Your task to perform on an android device: What's on my calendar for the rest of the week? Image 0: 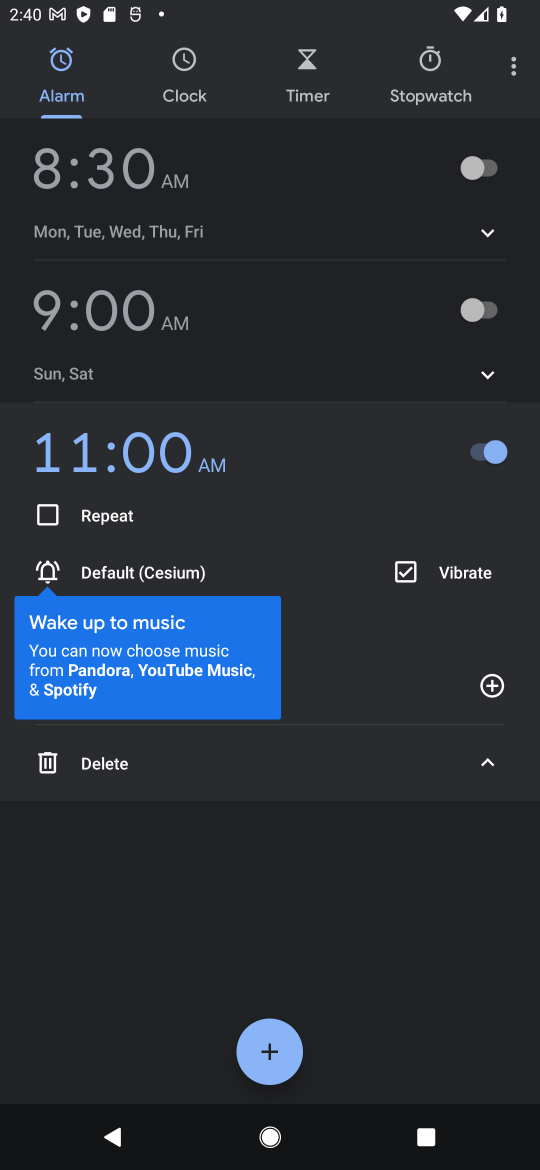
Step 0: press home button
Your task to perform on an android device: What's on my calendar for the rest of the week? Image 1: 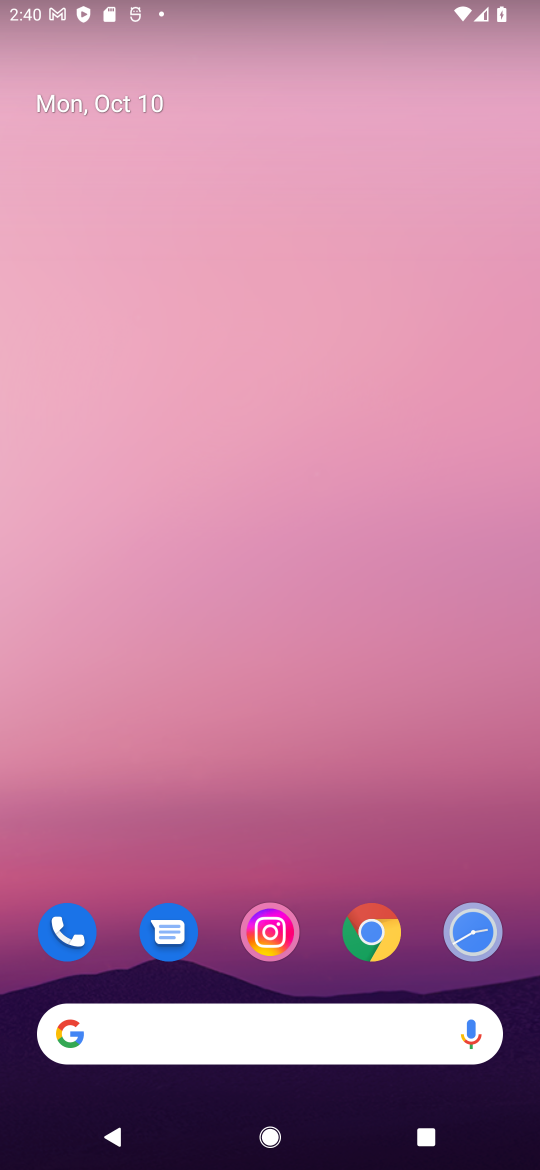
Step 1: drag from (469, 818) to (475, 241)
Your task to perform on an android device: What's on my calendar for the rest of the week? Image 2: 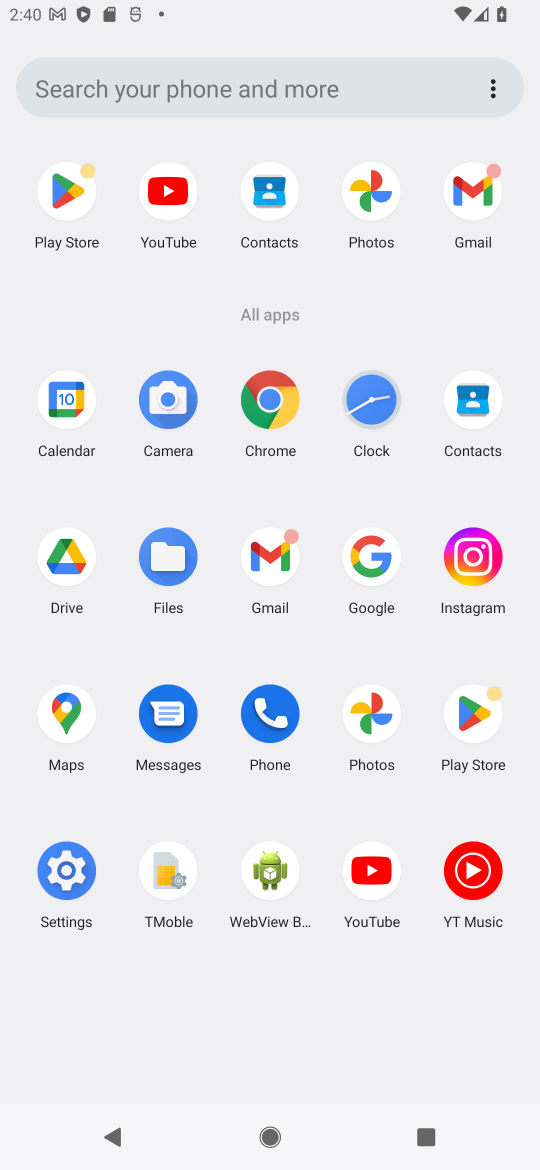
Step 2: click (71, 418)
Your task to perform on an android device: What's on my calendar for the rest of the week? Image 3: 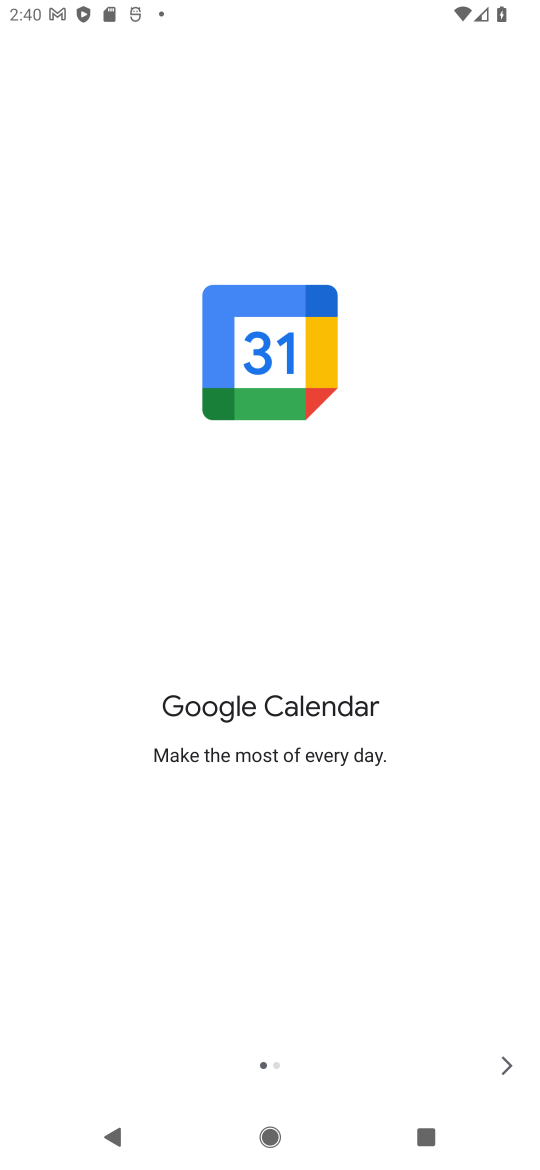
Step 3: click (499, 1067)
Your task to perform on an android device: What's on my calendar for the rest of the week? Image 4: 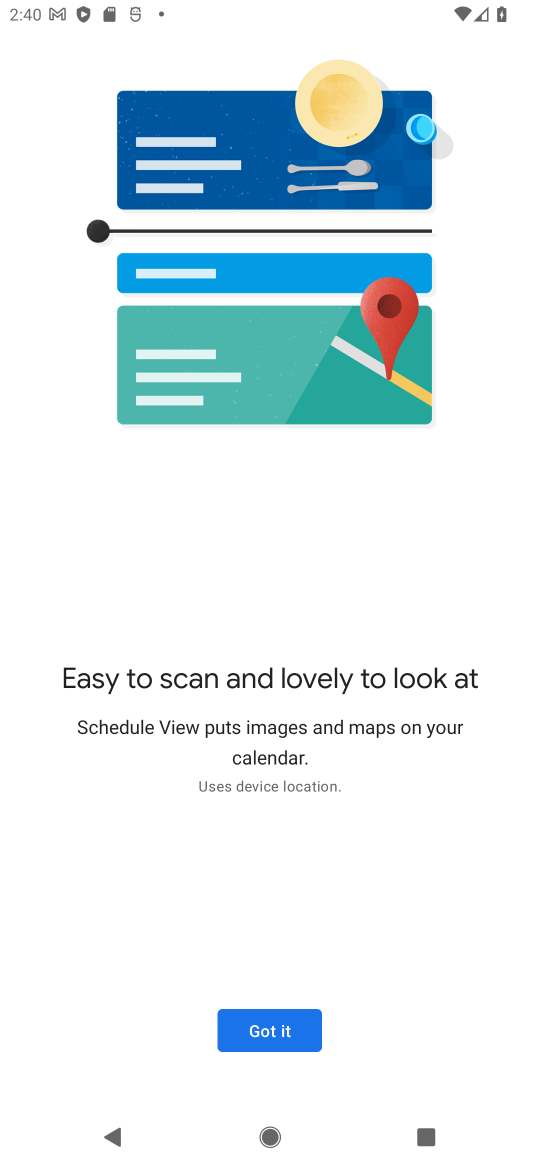
Step 4: click (282, 1026)
Your task to perform on an android device: What's on my calendar for the rest of the week? Image 5: 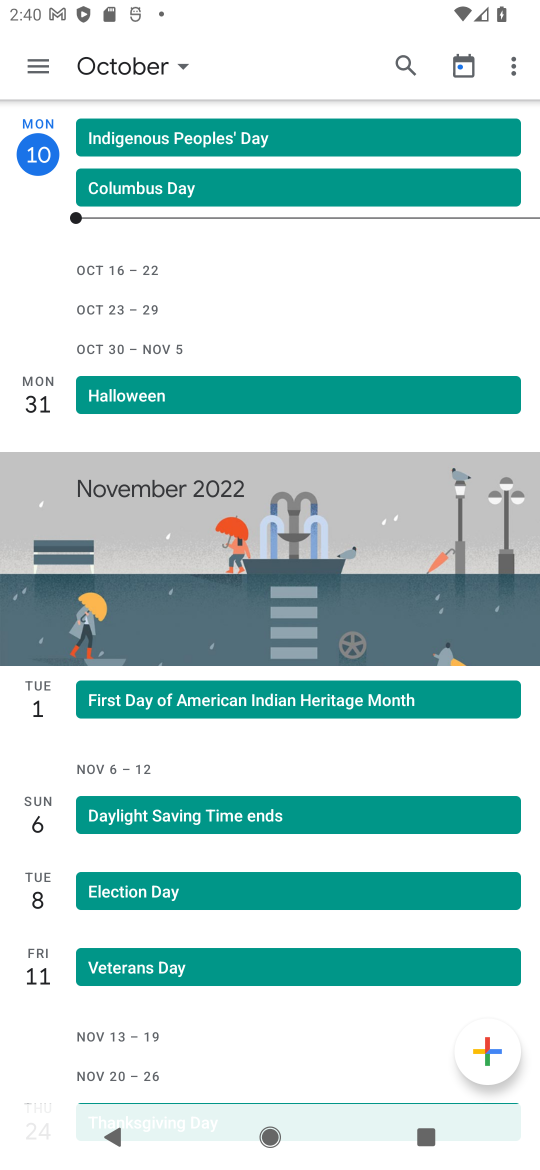
Step 5: click (38, 66)
Your task to perform on an android device: What's on my calendar for the rest of the week? Image 6: 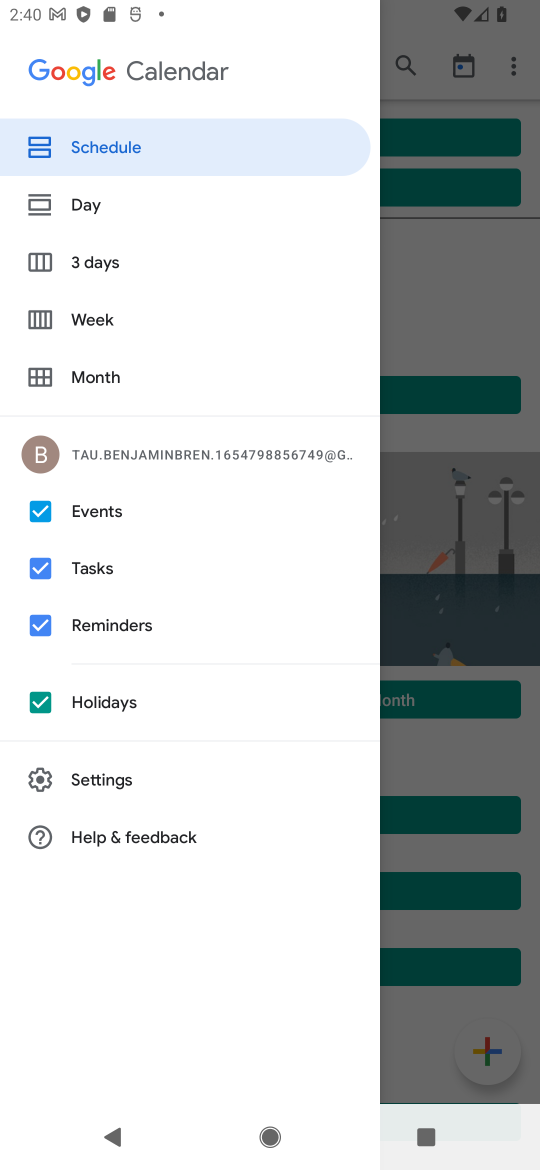
Step 6: click (87, 321)
Your task to perform on an android device: What's on my calendar for the rest of the week? Image 7: 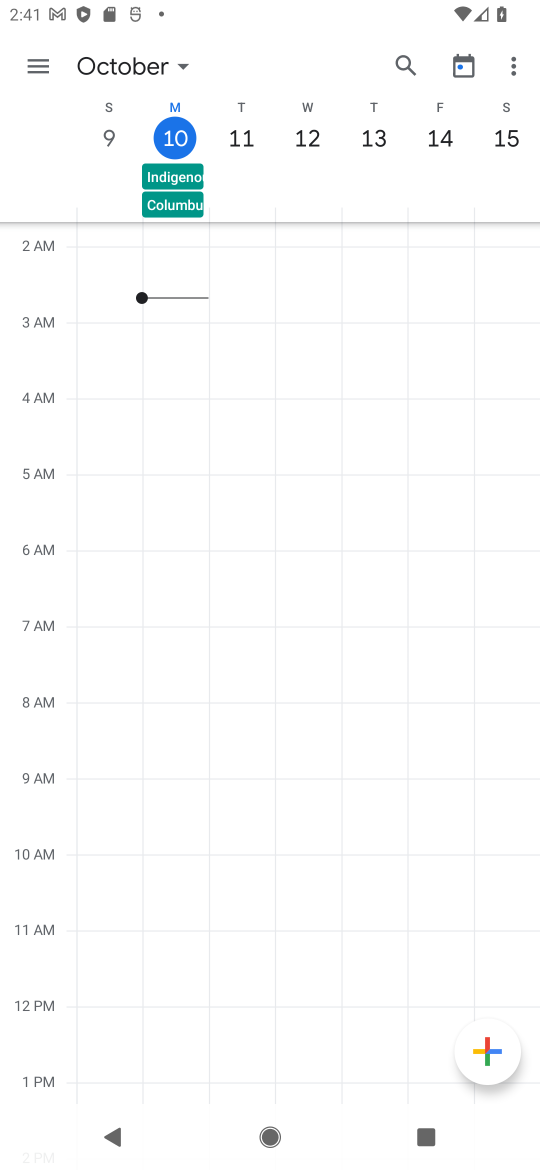
Step 7: task complete